Your task to perform on an android device: turn on data saver in the chrome app Image 0: 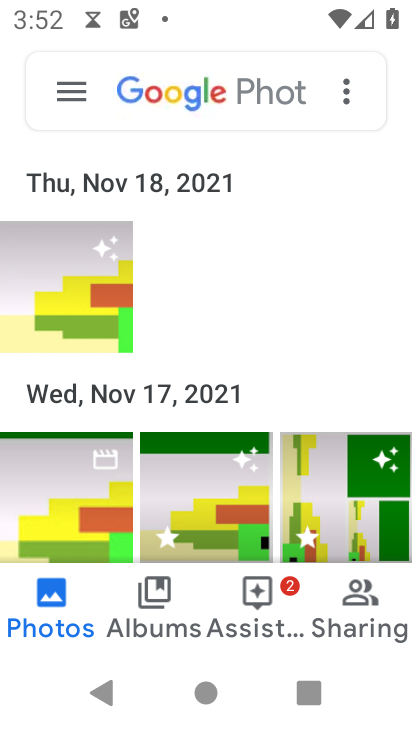
Step 0: press home button
Your task to perform on an android device: turn on data saver in the chrome app Image 1: 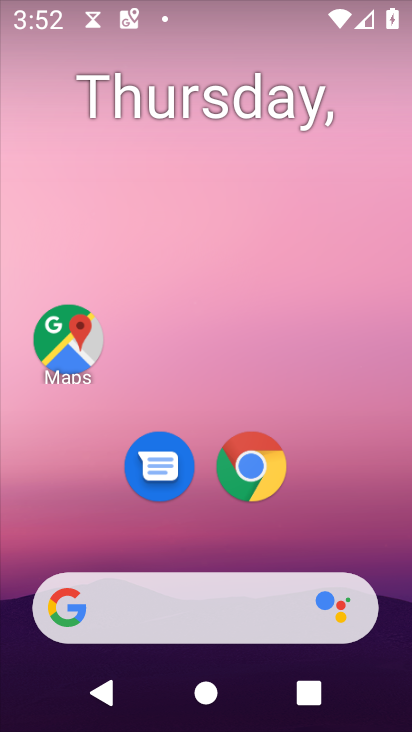
Step 1: drag from (364, 588) to (284, 174)
Your task to perform on an android device: turn on data saver in the chrome app Image 2: 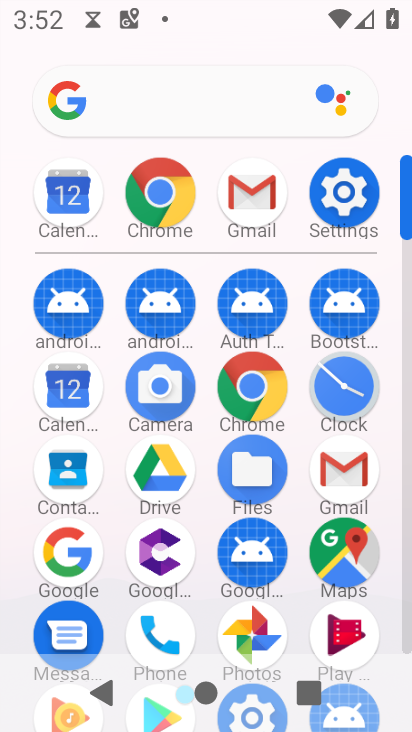
Step 2: click (252, 393)
Your task to perform on an android device: turn on data saver in the chrome app Image 3: 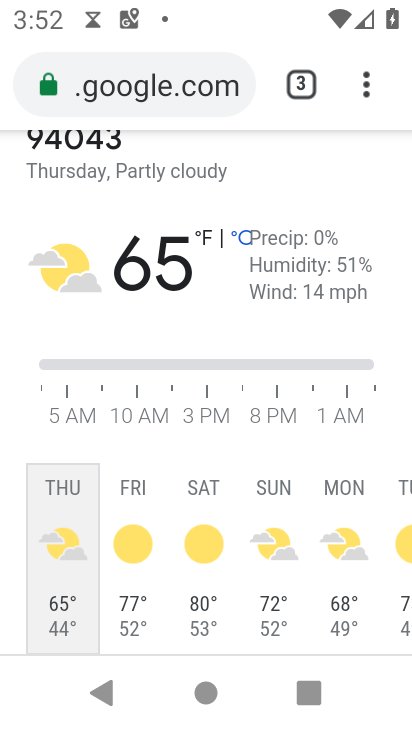
Step 3: drag from (368, 89) to (167, 525)
Your task to perform on an android device: turn on data saver in the chrome app Image 4: 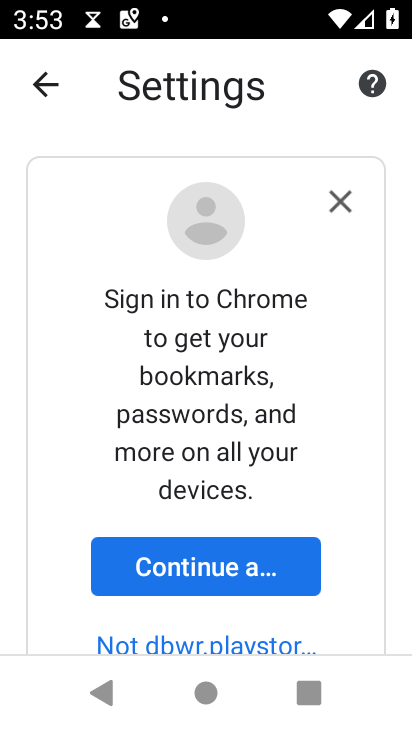
Step 4: drag from (295, 619) to (312, 114)
Your task to perform on an android device: turn on data saver in the chrome app Image 5: 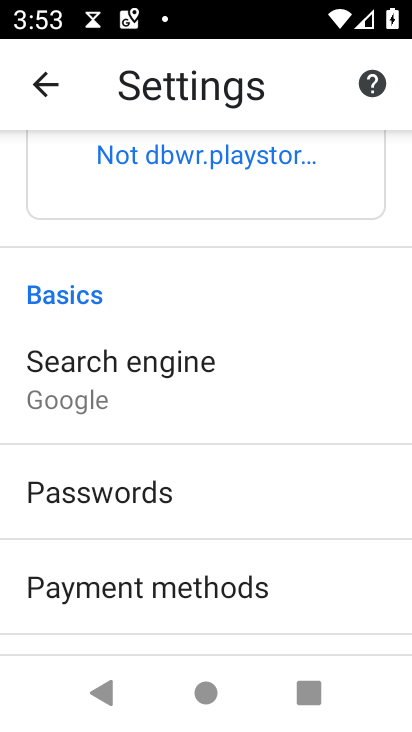
Step 5: drag from (251, 556) to (306, 173)
Your task to perform on an android device: turn on data saver in the chrome app Image 6: 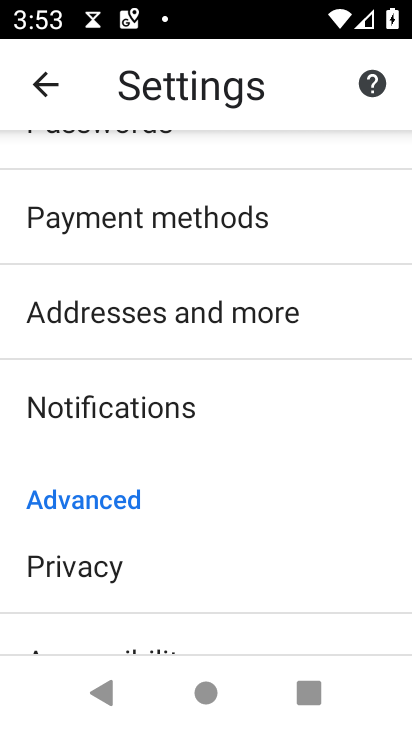
Step 6: drag from (206, 604) to (262, 228)
Your task to perform on an android device: turn on data saver in the chrome app Image 7: 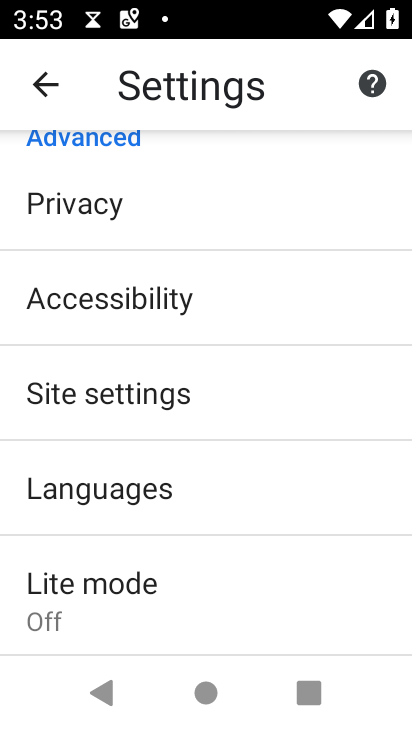
Step 7: click (214, 608)
Your task to perform on an android device: turn on data saver in the chrome app Image 8: 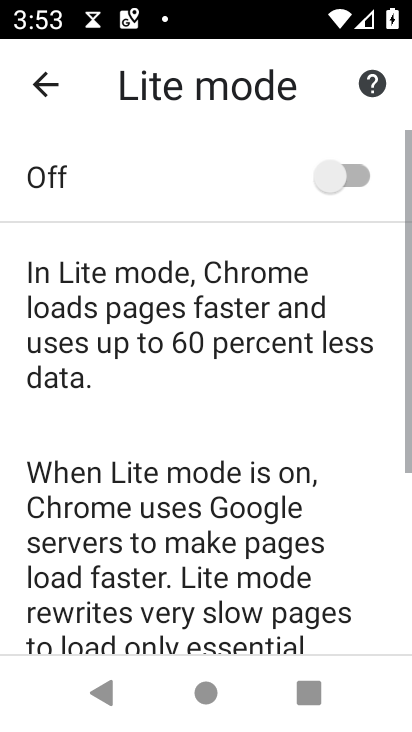
Step 8: click (361, 173)
Your task to perform on an android device: turn on data saver in the chrome app Image 9: 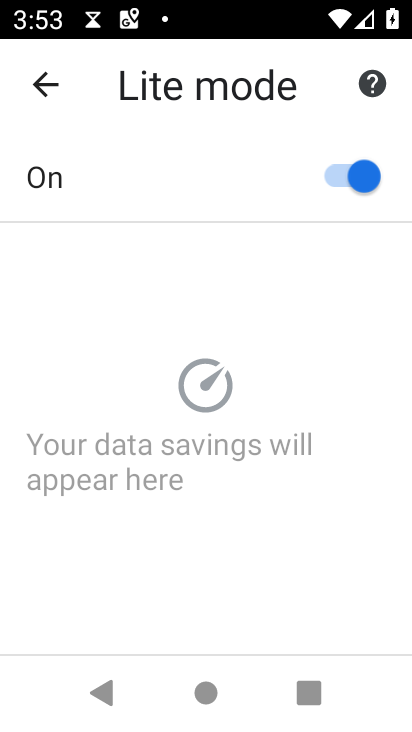
Step 9: task complete